Your task to perform on an android device: Do I have any events this weekend? Image 0: 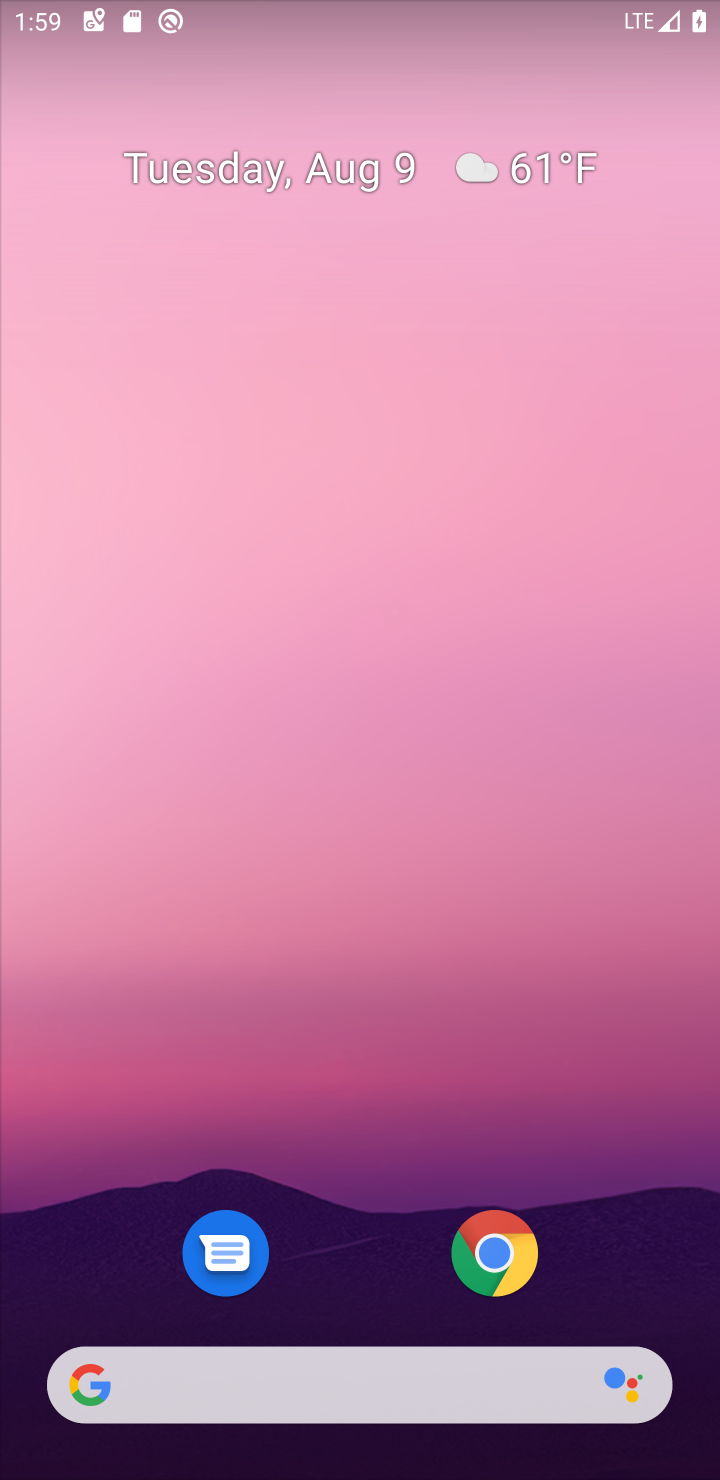
Step 0: drag from (594, 940) to (377, 36)
Your task to perform on an android device: Do I have any events this weekend? Image 1: 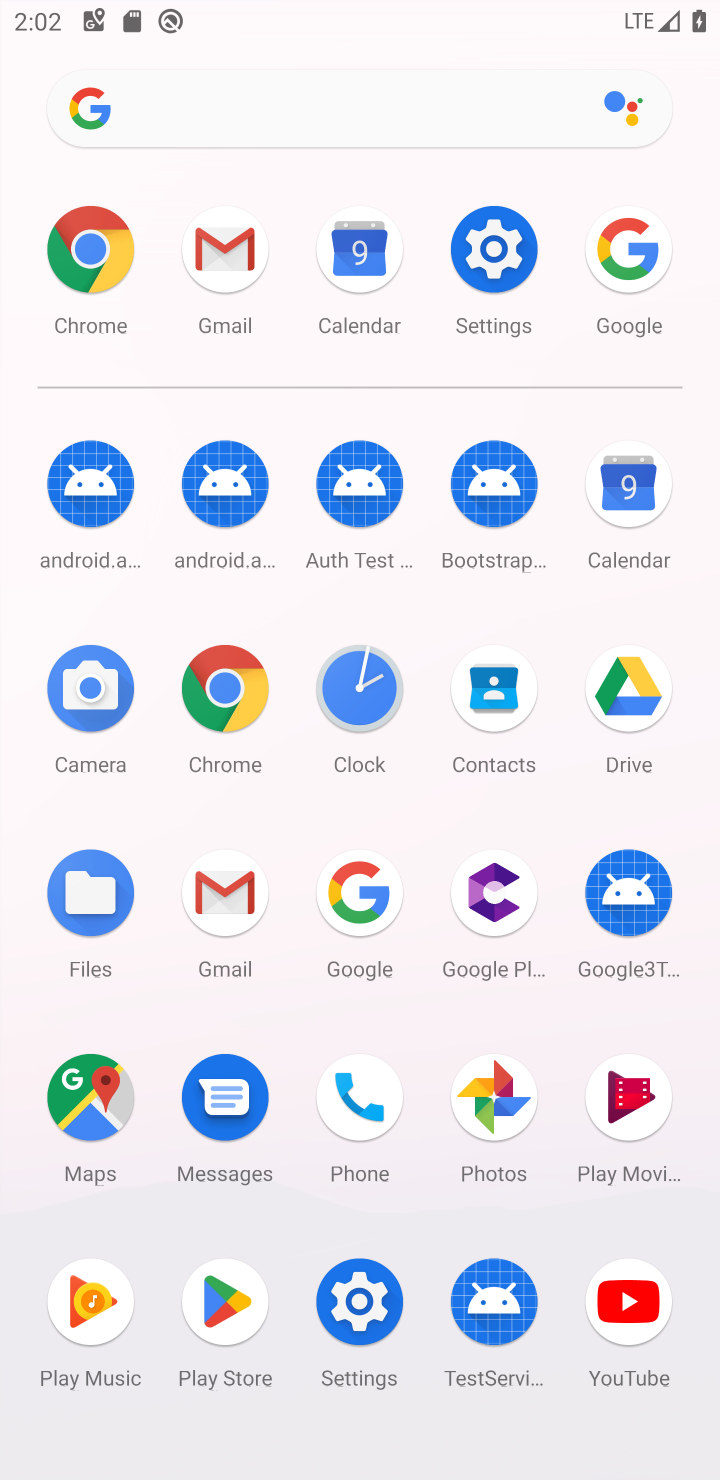
Step 1: click (638, 509)
Your task to perform on an android device: Do I have any events this weekend? Image 2: 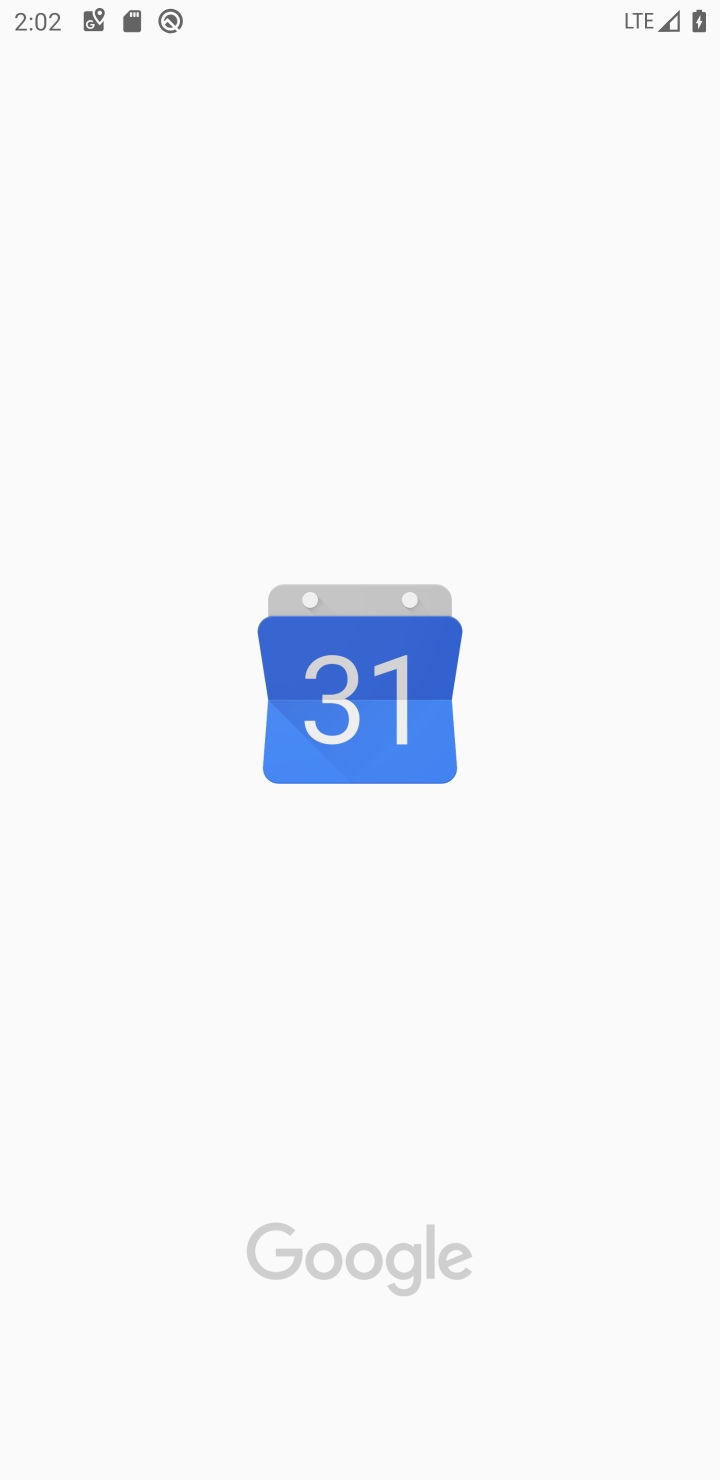
Step 2: task complete